Your task to perform on an android device: Go to Google Image 0: 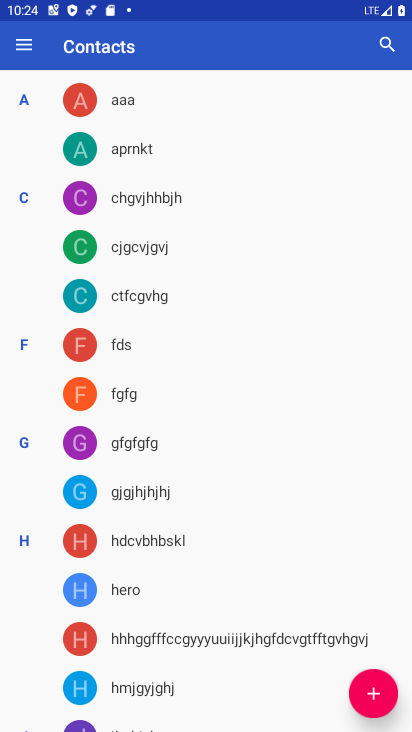
Step 0: press home button
Your task to perform on an android device: Go to Google Image 1: 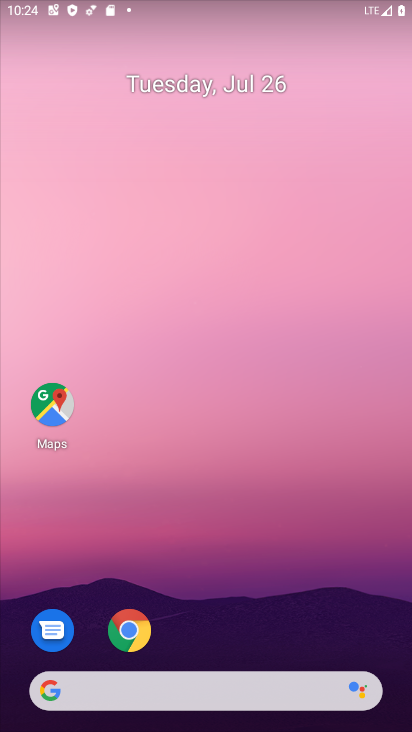
Step 1: click (137, 684)
Your task to perform on an android device: Go to Google Image 2: 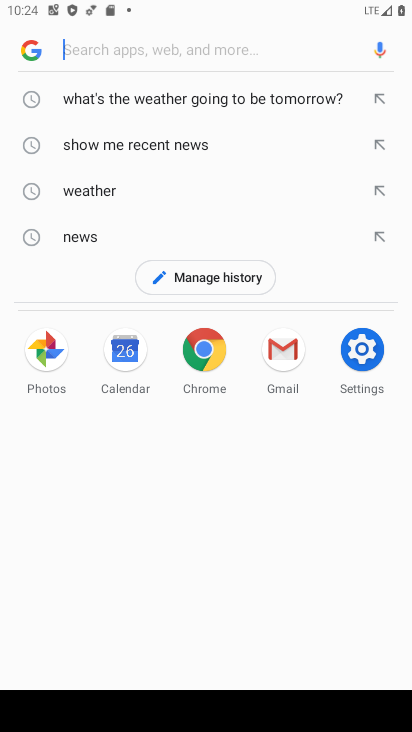
Step 2: task complete